Your task to perform on an android device: change the clock style Image 0: 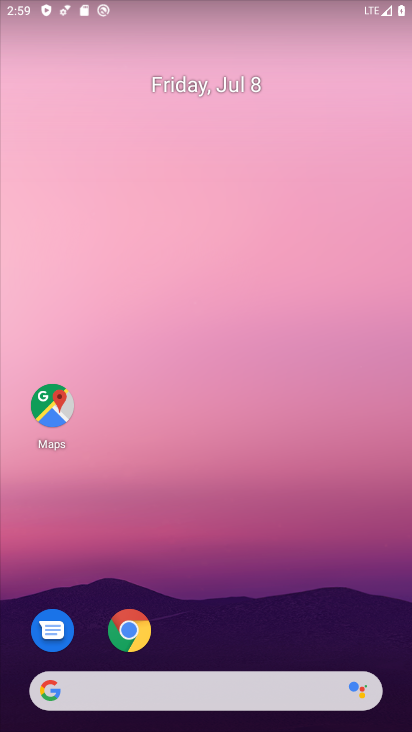
Step 0: drag from (249, 610) to (319, 73)
Your task to perform on an android device: change the clock style Image 1: 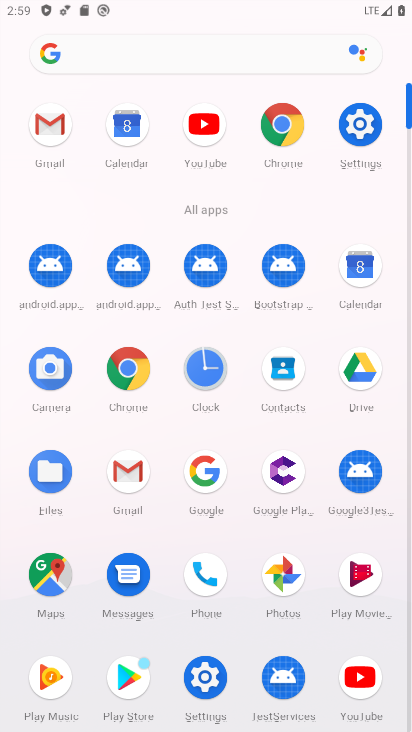
Step 1: click (201, 371)
Your task to perform on an android device: change the clock style Image 2: 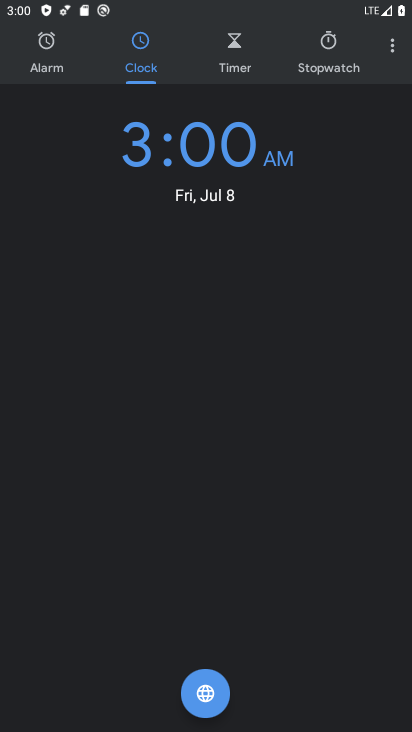
Step 2: click (390, 44)
Your task to perform on an android device: change the clock style Image 3: 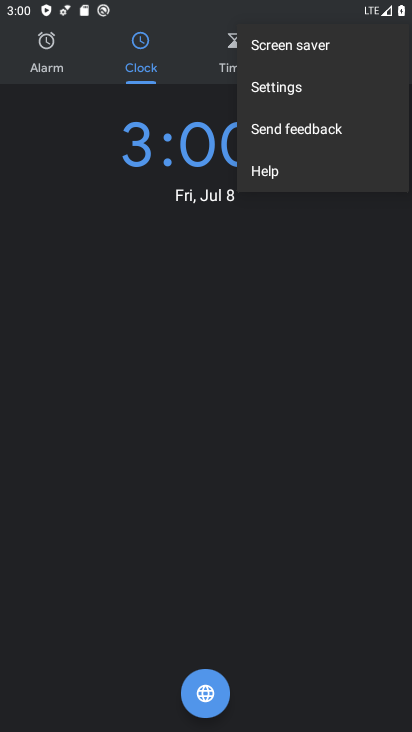
Step 3: click (298, 85)
Your task to perform on an android device: change the clock style Image 4: 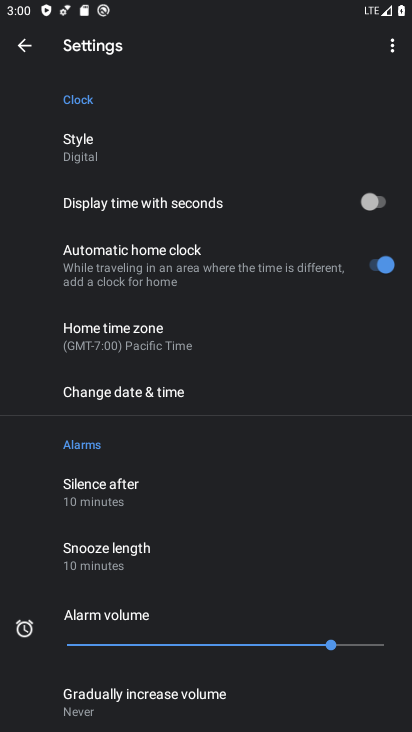
Step 4: click (127, 148)
Your task to perform on an android device: change the clock style Image 5: 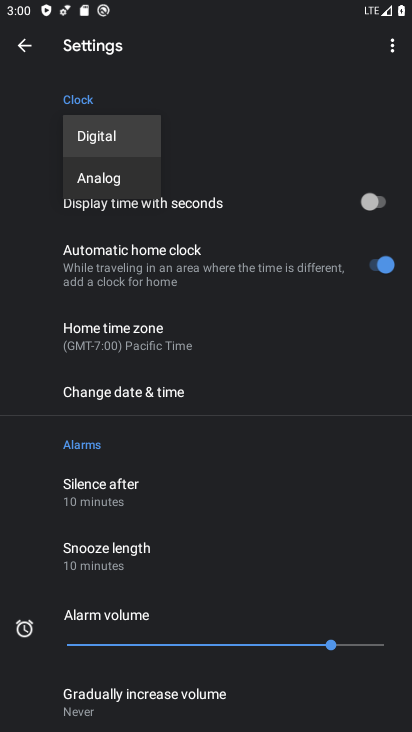
Step 5: click (111, 176)
Your task to perform on an android device: change the clock style Image 6: 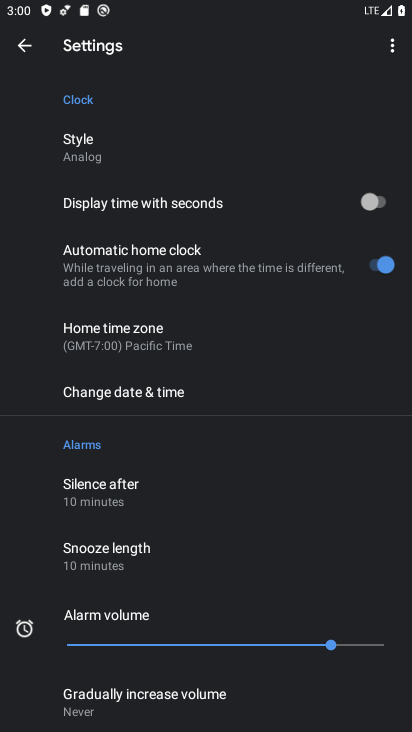
Step 6: task complete